Your task to perform on an android device: set default search engine in the chrome app Image 0: 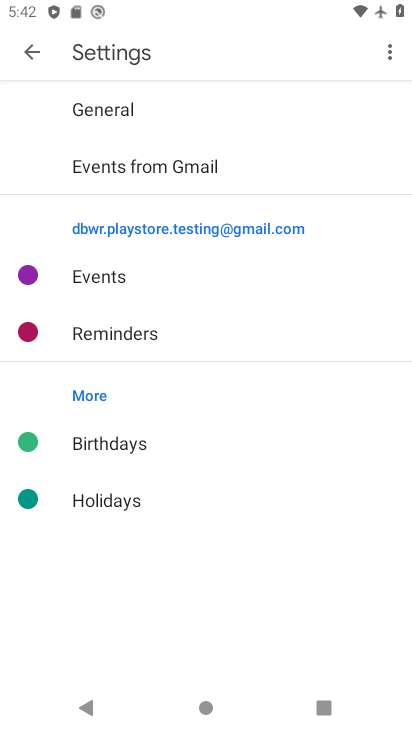
Step 0: click (34, 38)
Your task to perform on an android device: set default search engine in the chrome app Image 1: 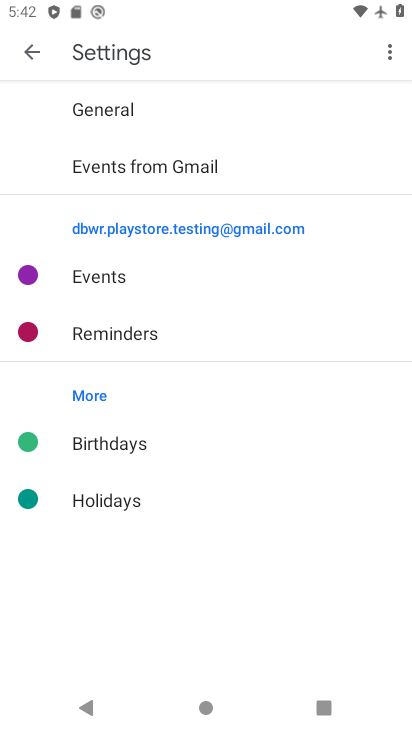
Step 1: click (30, 31)
Your task to perform on an android device: set default search engine in the chrome app Image 2: 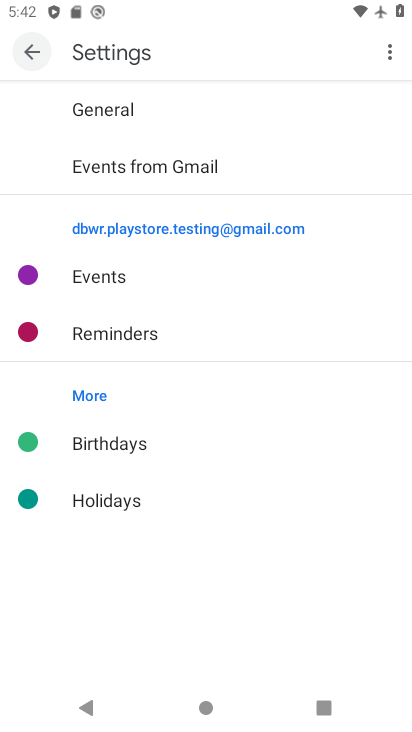
Step 2: click (29, 48)
Your task to perform on an android device: set default search engine in the chrome app Image 3: 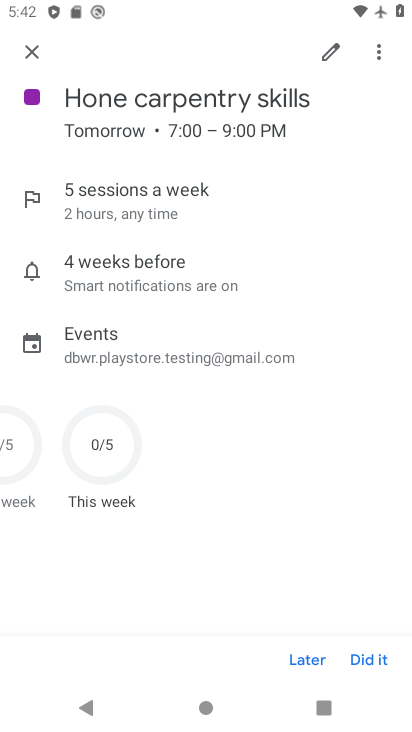
Step 3: click (22, 38)
Your task to perform on an android device: set default search engine in the chrome app Image 4: 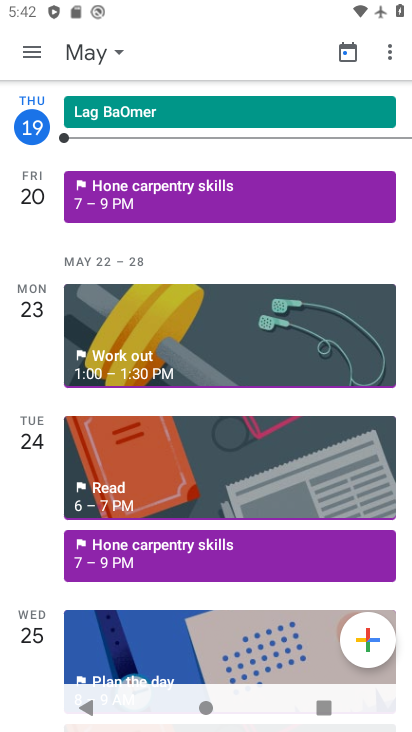
Step 4: press back button
Your task to perform on an android device: set default search engine in the chrome app Image 5: 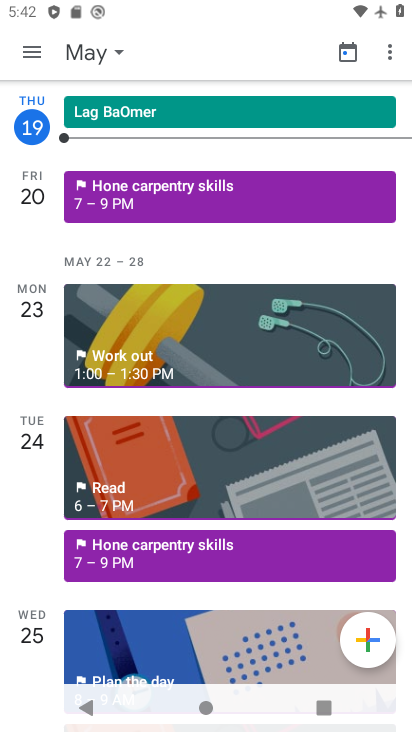
Step 5: press back button
Your task to perform on an android device: set default search engine in the chrome app Image 6: 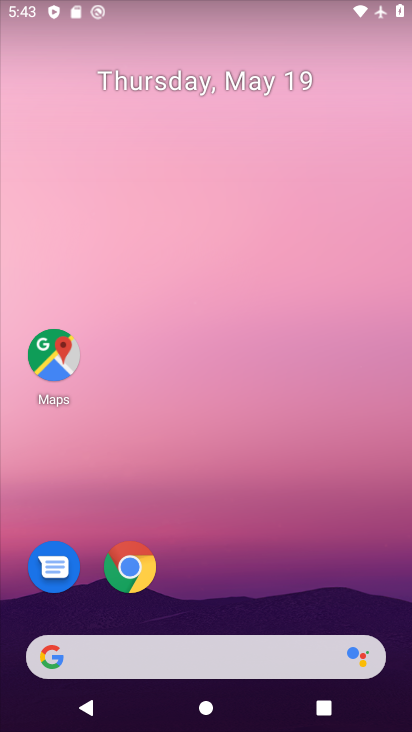
Step 6: drag from (205, 607) to (62, 74)
Your task to perform on an android device: set default search engine in the chrome app Image 7: 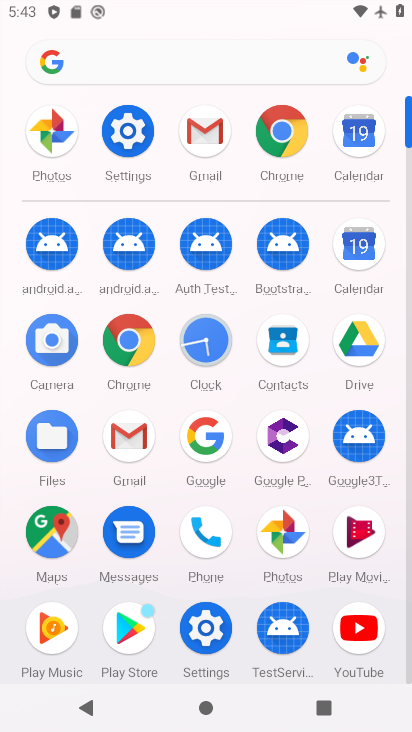
Step 7: drag from (335, 696) to (232, 134)
Your task to perform on an android device: set default search engine in the chrome app Image 8: 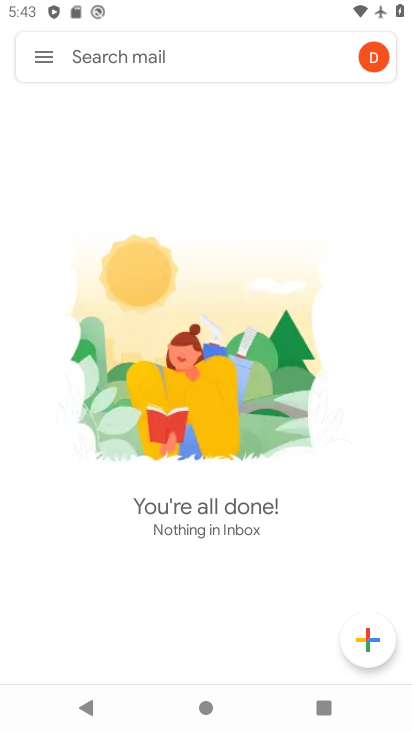
Step 8: press back button
Your task to perform on an android device: set default search engine in the chrome app Image 9: 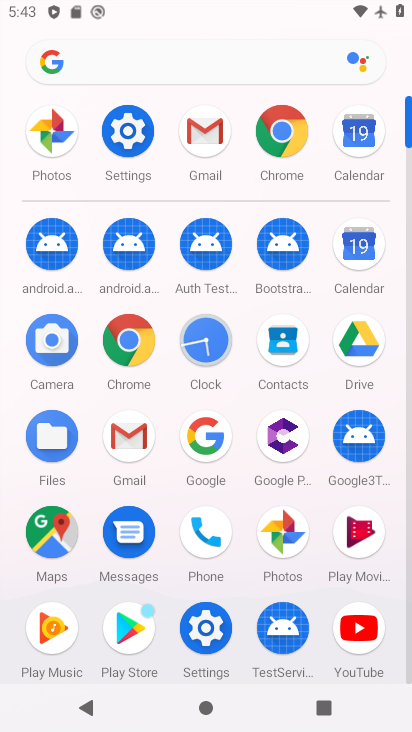
Step 9: click (296, 144)
Your task to perform on an android device: set default search engine in the chrome app Image 10: 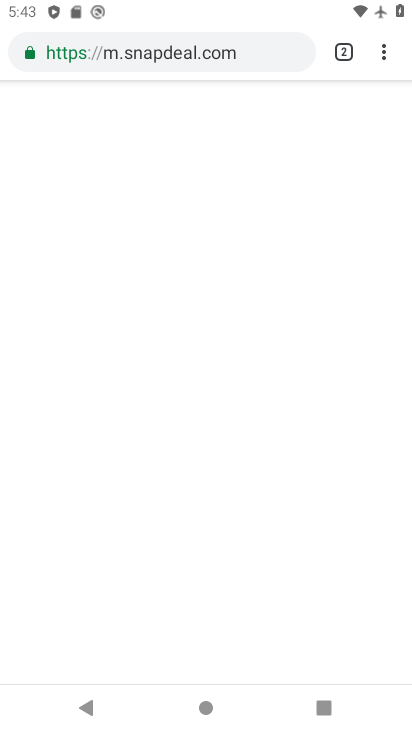
Step 10: drag from (381, 54) to (191, 585)
Your task to perform on an android device: set default search engine in the chrome app Image 11: 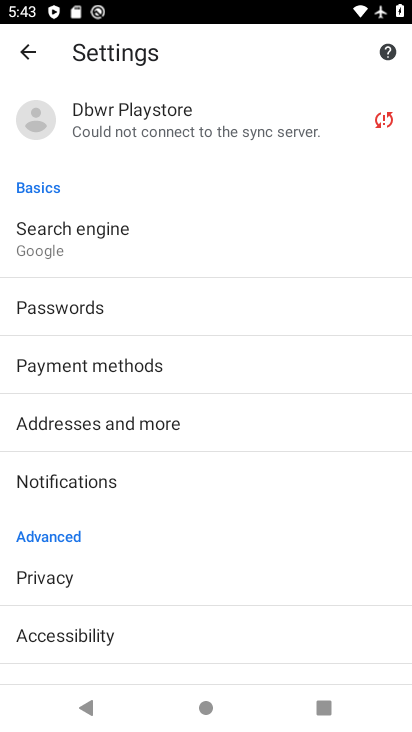
Step 11: click (63, 245)
Your task to perform on an android device: set default search engine in the chrome app Image 12: 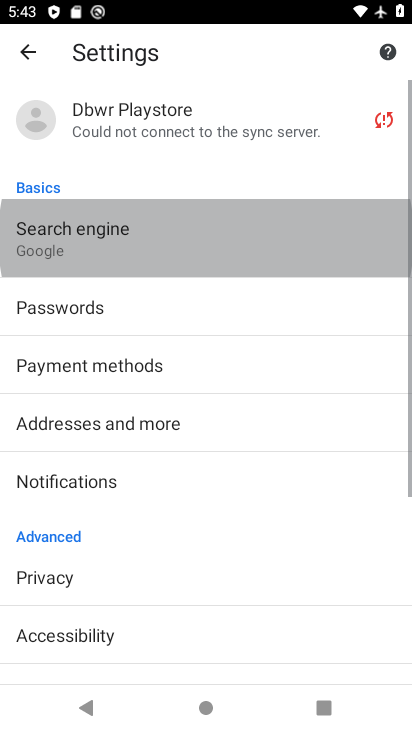
Step 12: click (63, 245)
Your task to perform on an android device: set default search engine in the chrome app Image 13: 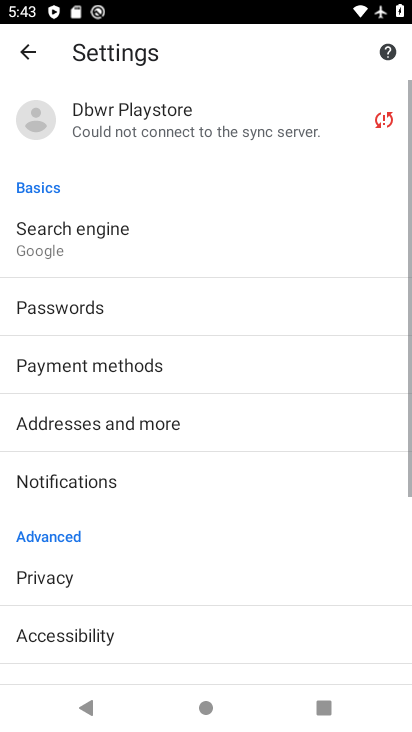
Step 13: click (63, 245)
Your task to perform on an android device: set default search engine in the chrome app Image 14: 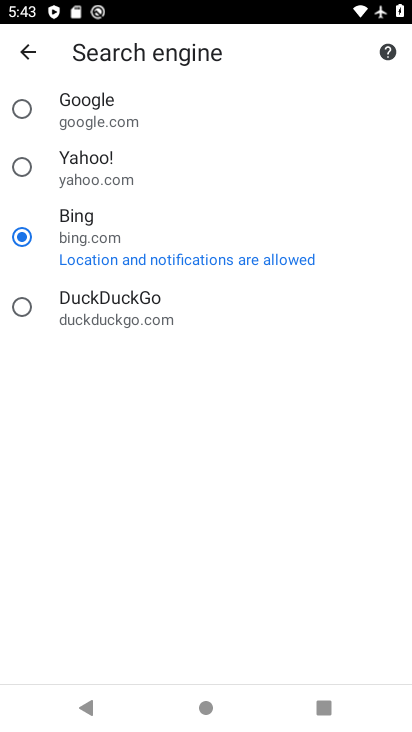
Step 14: click (18, 112)
Your task to perform on an android device: set default search engine in the chrome app Image 15: 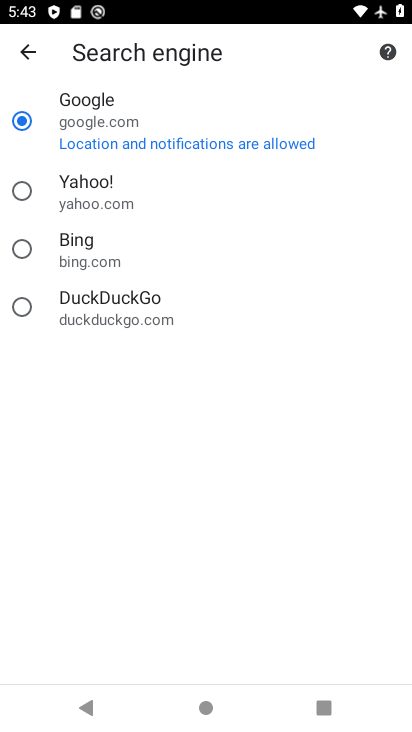
Step 15: task complete